Your task to perform on an android device: add a contact Image 0: 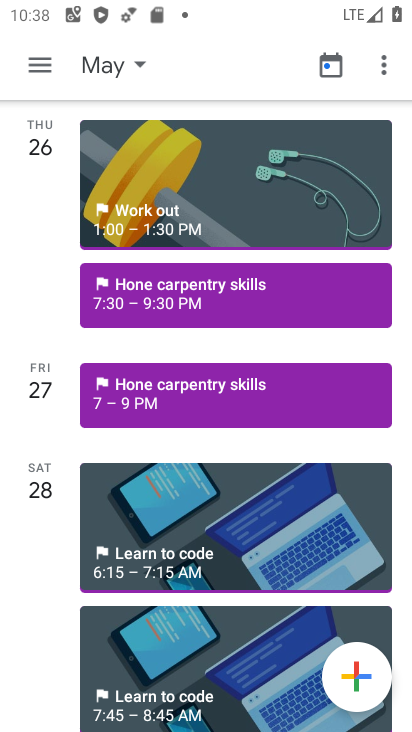
Step 0: press home button
Your task to perform on an android device: add a contact Image 1: 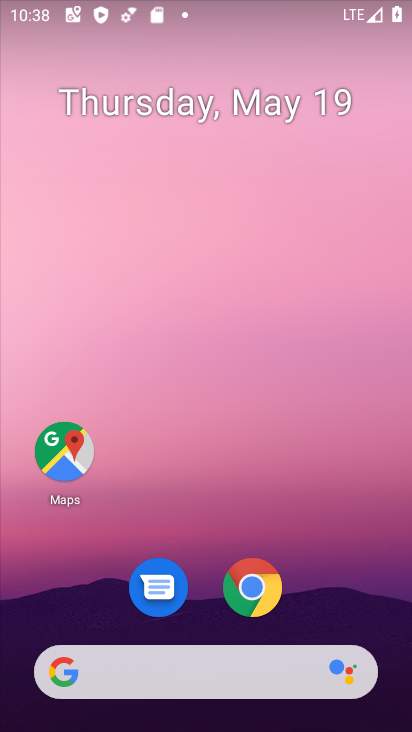
Step 1: drag from (199, 572) to (153, 140)
Your task to perform on an android device: add a contact Image 2: 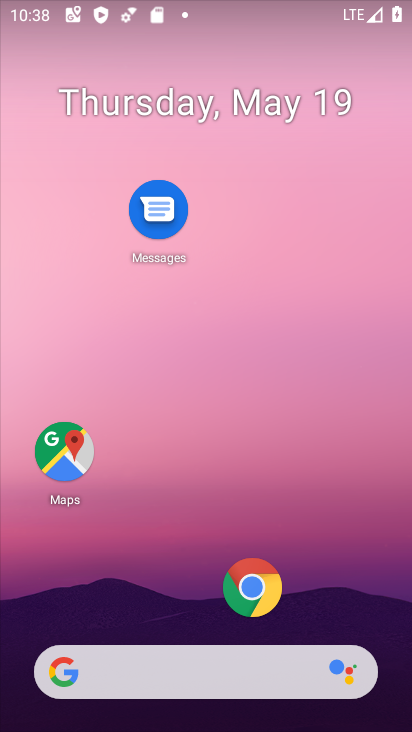
Step 2: drag from (218, 625) to (216, 231)
Your task to perform on an android device: add a contact Image 3: 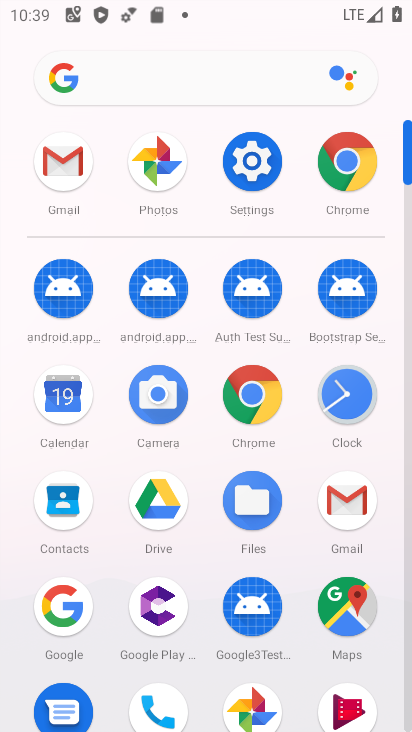
Step 3: click (166, 690)
Your task to perform on an android device: add a contact Image 4: 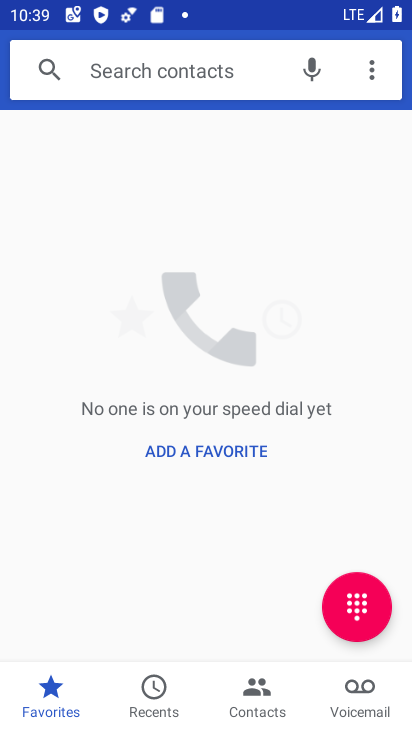
Step 4: click (254, 695)
Your task to perform on an android device: add a contact Image 5: 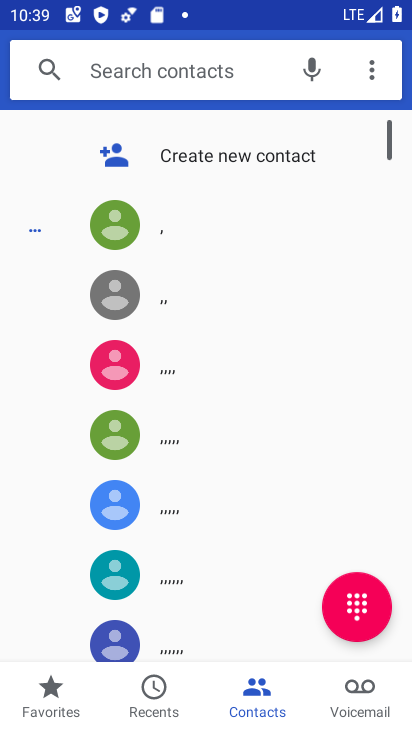
Step 5: click (196, 145)
Your task to perform on an android device: add a contact Image 6: 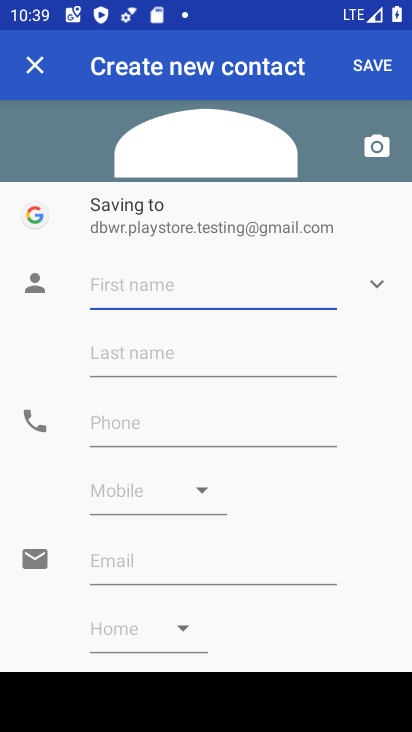
Step 6: type "ani"
Your task to perform on an android device: add a contact Image 7: 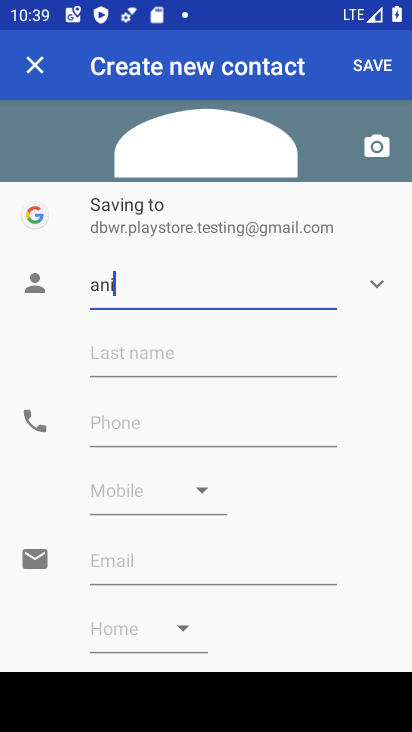
Step 7: click (113, 430)
Your task to perform on an android device: add a contact Image 8: 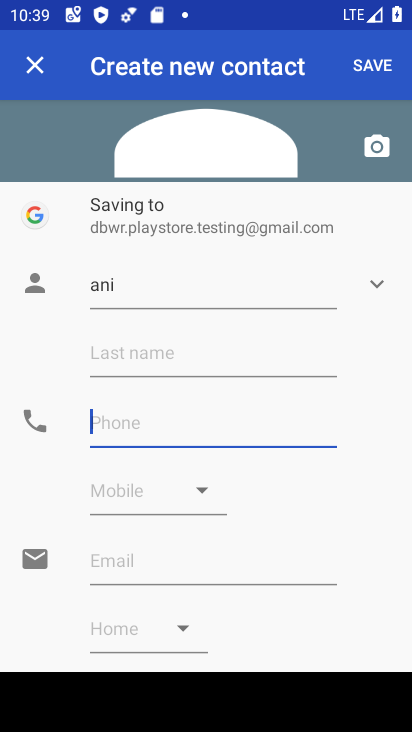
Step 8: type "9876545678"
Your task to perform on an android device: add a contact Image 9: 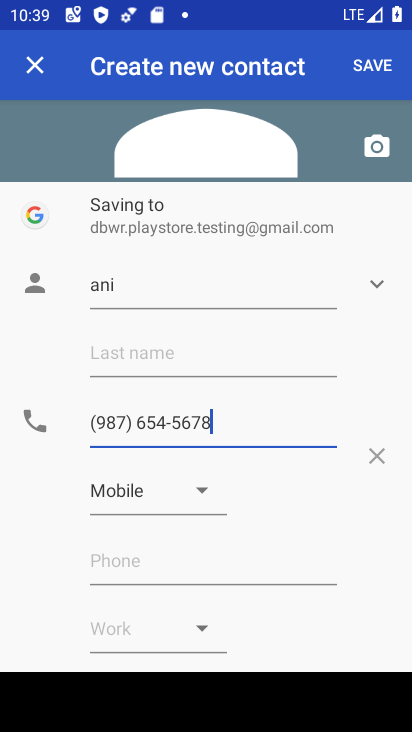
Step 9: click (368, 89)
Your task to perform on an android device: add a contact Image 10: 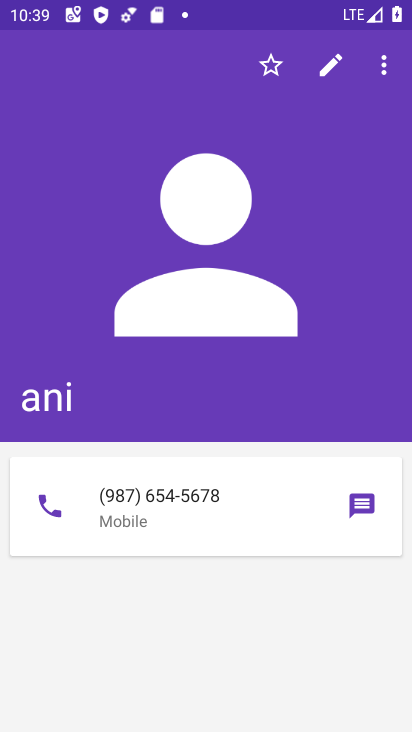
Step 10: task complete